Your task to perform on an android device: Clear all items from cart on newegg. Search for logitech g pro on newegg, select the first entry, and add it to the cart. Image 0: 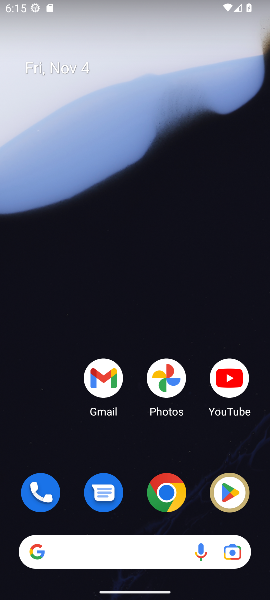
Step 0: drag from (131, 453) to (139, 21)
Your task to perform on an android device: Clear all items from cart on newegg. Search for logitech g pro on newegg, select the first entry, and add it to the cart. Image 1: 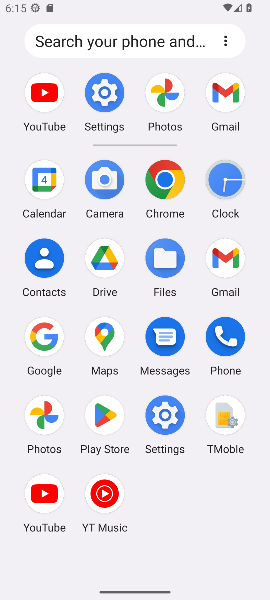
Step 1: click (162, 185)
Your task to perform on an android device: Clear all items from cart on newegg. Search for logitech g pro on newegg, select the first entry, and add it to the cart. Image 2: 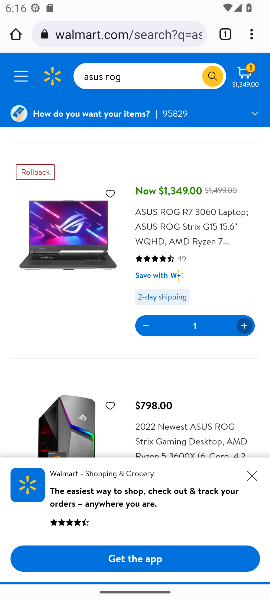
Step 2: click (161, 33)
Your task to perform on an android device: Clear all items from cart on newegg. Search for logitech g pro on newegg, select the first entry, and add it to the cart. Image 3: 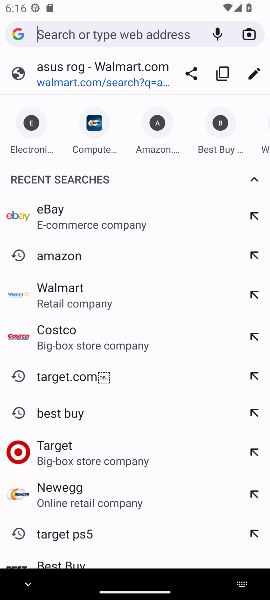
Step 3: type "newegg.com"
Your task to perform on an android device: Clear all items from cart on newegg. Search for logitech g pro on newegg, select the first entry, and add it to the cart. Image 4: 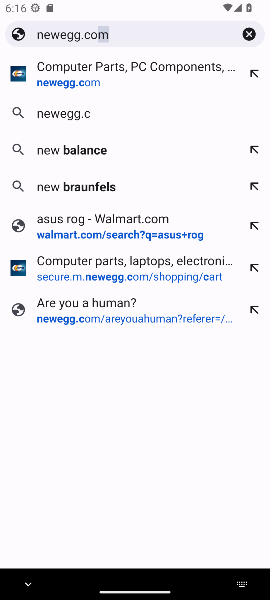
Step 4: press enter
Your task to perform on an android device: Clear all items from cart on newegg. Search for logitech g pro on newegg, select the first entry, and add it to the cart. Image 5: 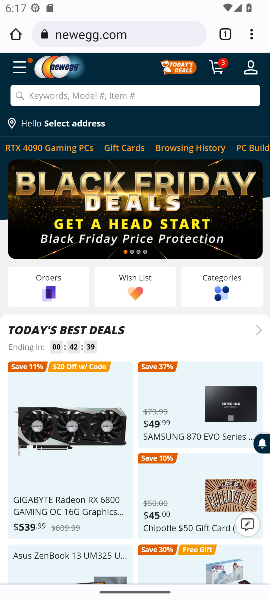
Step 5: click (210, 68)
Your task to perform on an android device: Clear all items from cart on newegg. Search for logitech g pro on newegg, select the first entry, and add it to the cart. Image 6: 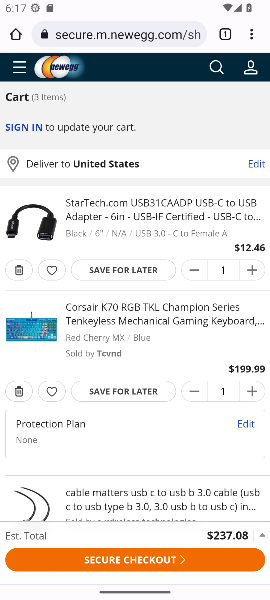
Step 6: click (19, 268)
Your task to perform on an android device: Clear all items from cart on newegg. Search for logitech g pro on newegg, select the first entry, and add it to the cart. Image 7: 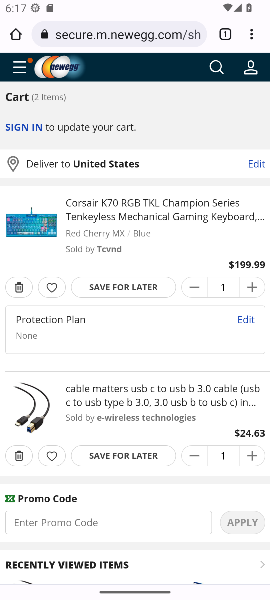
Step 7: click (21, 287)
Your task to perform on an android device: Clear all items from cart on newegg. Search for logitech g pro on newegg, select the first entry, and add it to the cart. Image 8: 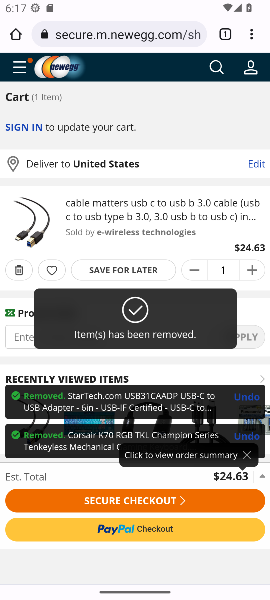
Step 8: click (22, 281)
Your task to perform on an android device: Clear all items from cart on newegg. Search for logitech g pro on newegg, select the first entry, and add it to the cart. Image 9: 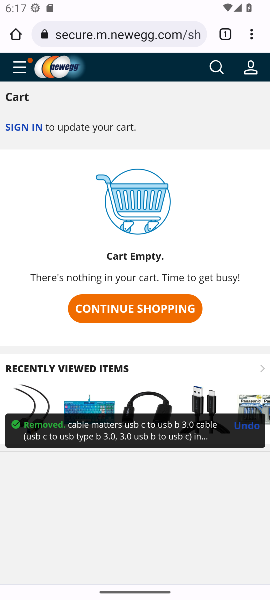
Step 9: click (219, 66)
Your task to perform on an android device: Clear all items from cart on newegg. Search for logitech g pro on newegg, select the first entry, and add it to the cart. Image 10: 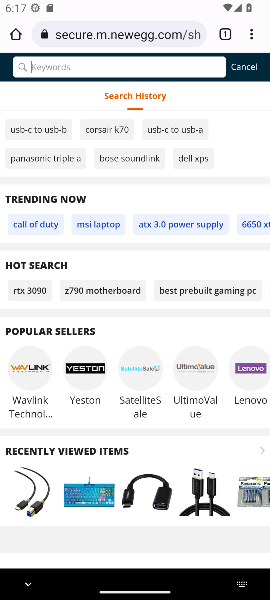
Step 10: type "logitech g pro"
Your task to perform on an android device: Clear all items from cart on newegg. Search for logitech g pro on newegg, select the first entry, and add it to the cart. Image 11: 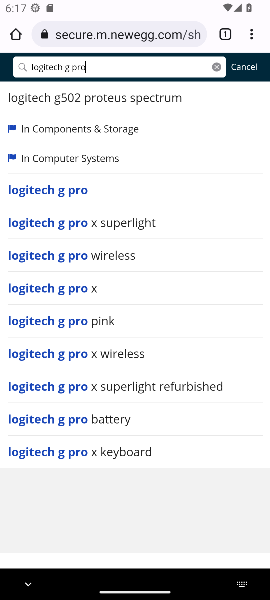
Step 11: press enter
Your task to perform on an android device: Clear all items from cart on newegg. Search for logitech g pro on newegg, select the first entry, and add it to the cart. Image 12: 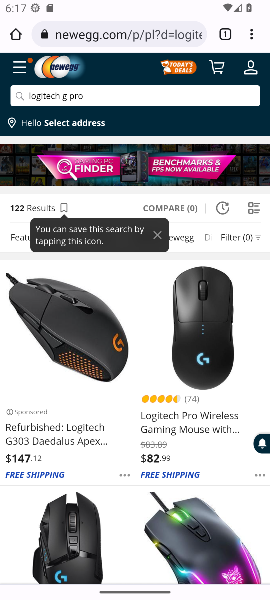
Step 12: click (215, 421)
Your task to perform on an android device: Clear all items from cart on newegg. Search for logitech g pro on newegg, select the first entry, and add it to the cart. Image 13: 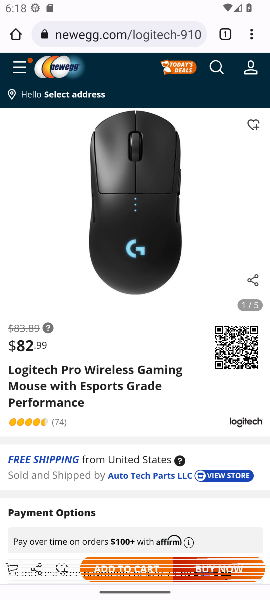
Step 13: drag from (148, 473) to (159, 241)
Your task to perform on an android device: Clear all items from cart on newegg. Search for logitech g pro on newegg, select the first entry, and add it to the cart. Image 14: 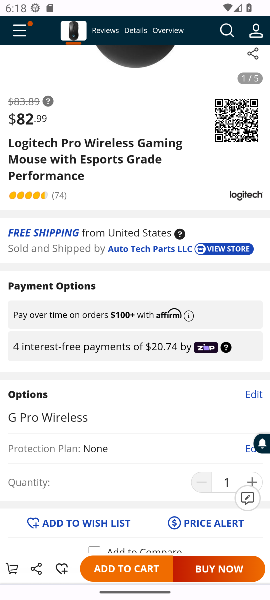
Step 14: click (128, 574)
Your task to perform on an android device: Clear all items from cart on newegg. Search for logitech g pro on newegg, select the first entry, and add it to the cart. Image 15: 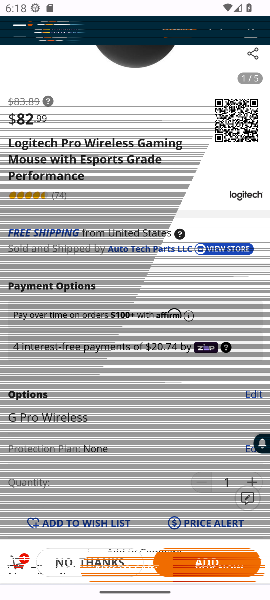
Step 15: task complete